Your task to perform on an android device: change the clock display to digital Image 0: 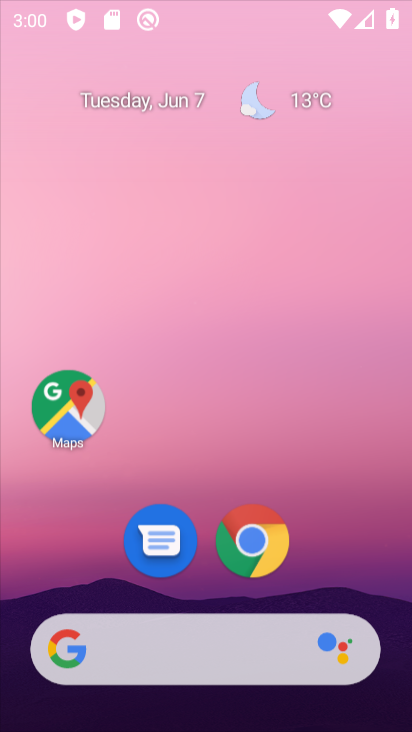
Step 0: press home button
Your task to perform on an android device: change the clock display to digital Image 1: 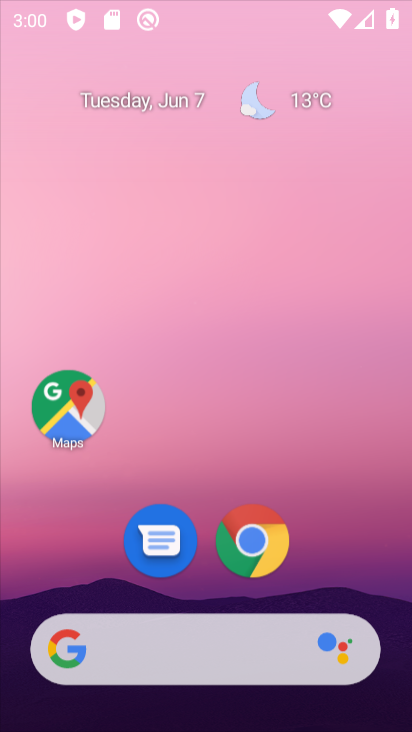
Step 1: click (66, 395)
Your task to perform on an android device: change the clock display to digital Image 2: 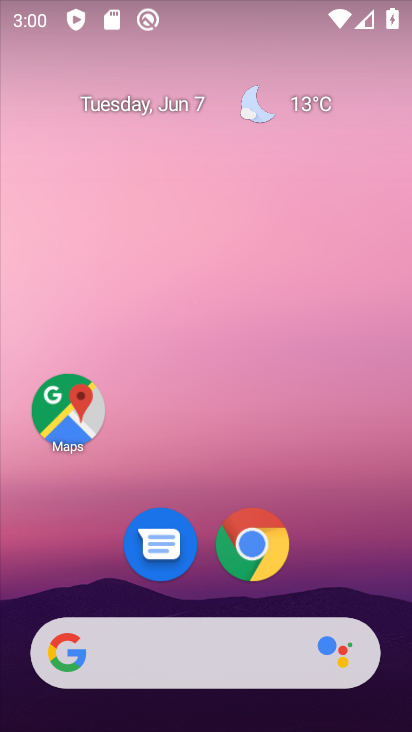
Step 2: drag from (207, 598) to (252, 137)
Your task to perform on an android device: change the clock display to digital Image 3: 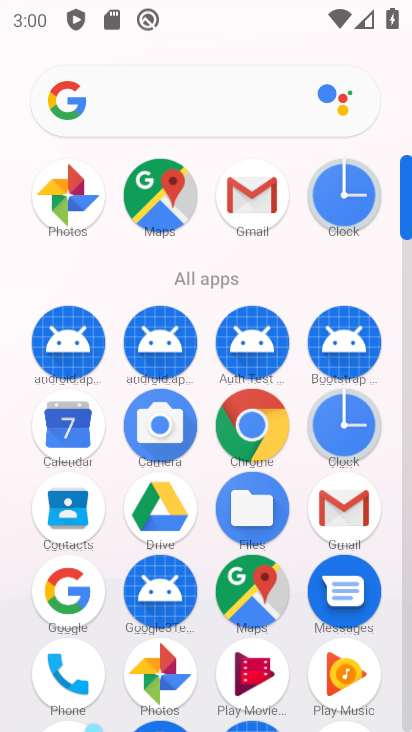
Step 3: click (341, 186)
Your task to perform on an android device: change the clock display to digital Image 4: 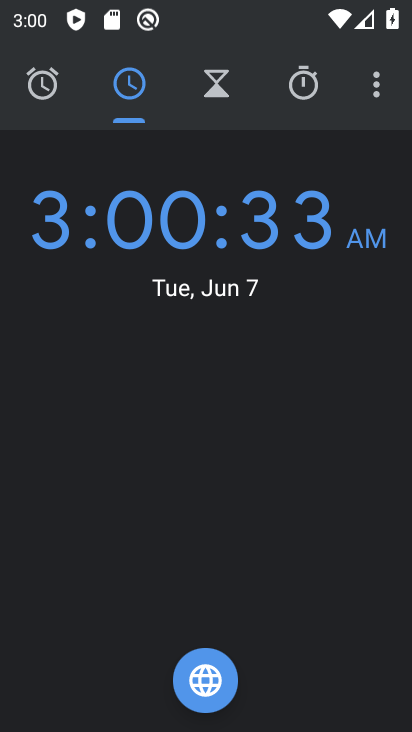
Step 4: click (382, 74)
Your task to perform on an android device: change the clock display to digital Image 5: 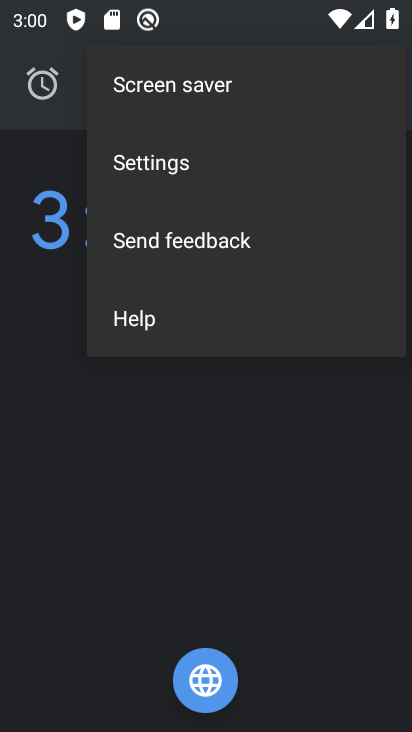
Step 5: click (202, 162)
Your task to perform on an android device: change the clock display to digital Image 6: 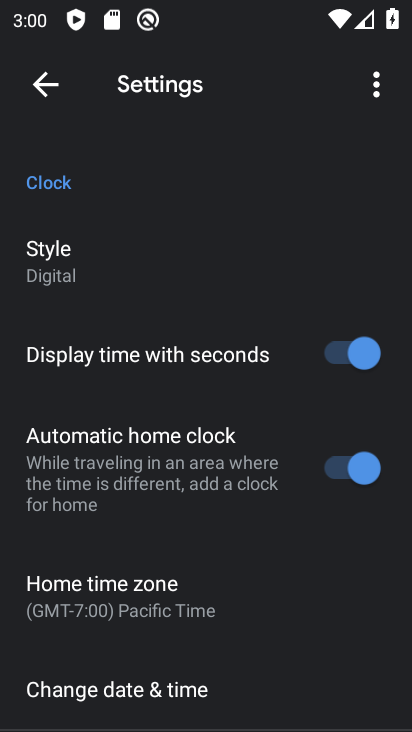
Step 6: click (94, 271)
Your task to perform on an android device: change the clock display to digital Image 7: 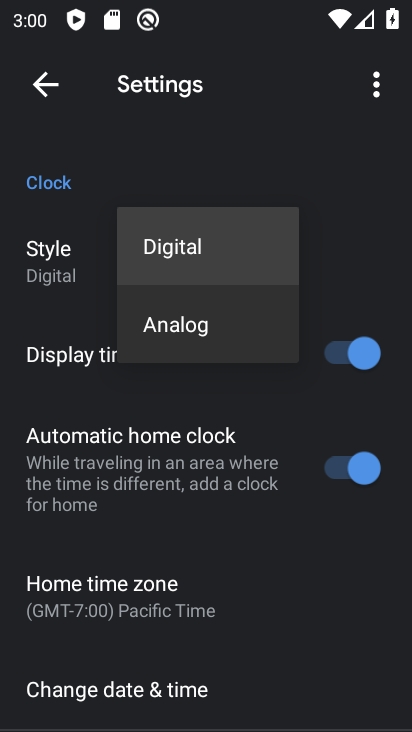
Step 7: click (207, 243)
Your task to perform on an android device: change the clock display to digital Image 8: 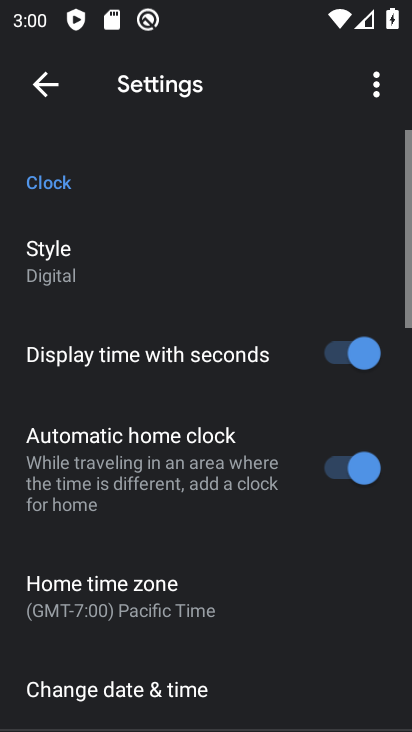
Step 8: task complete